Your task to perform on an android device: Open internet settings Image 0: 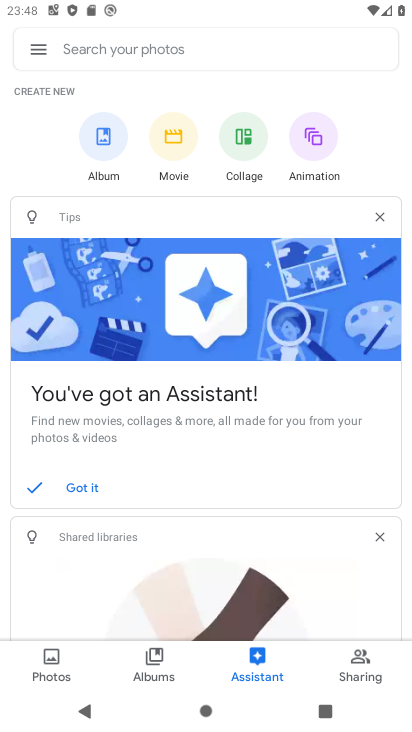
Step 0: press home button
Your task to perform on an android device: Open internet settings Image 1: 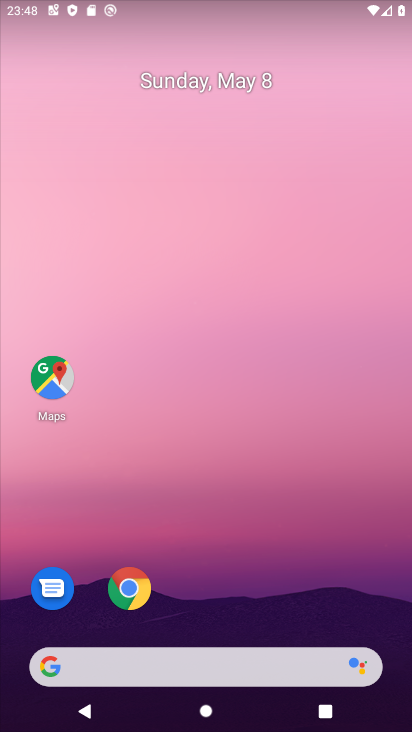
Step 1: drag from (207, 578) to (119, 59)
Your task to perform on an android device: Open internet settings Image 2: 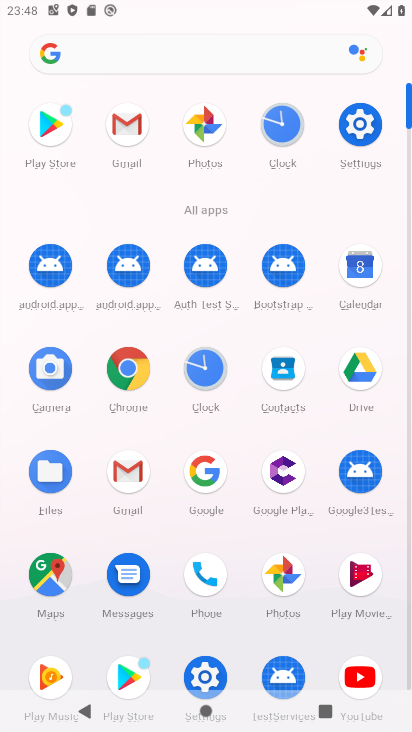
Step 2: click (359, 126)
Your task to perform on an android device: Open internet settings Image 3: 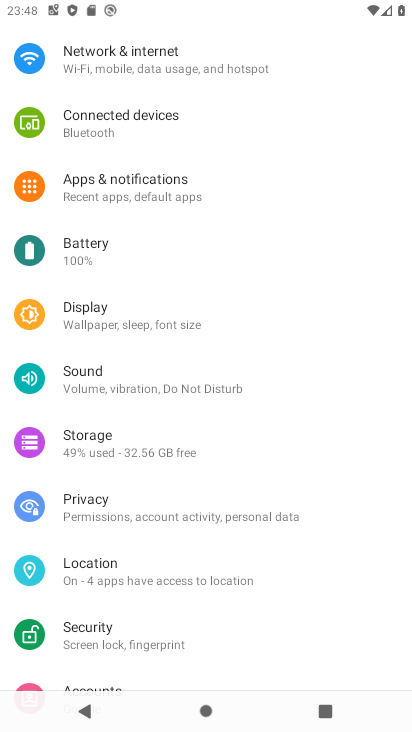
Step 3: drag from (234, 137) to (268, 473)
Your task to perform on an android device: Open internet settings Image 4: 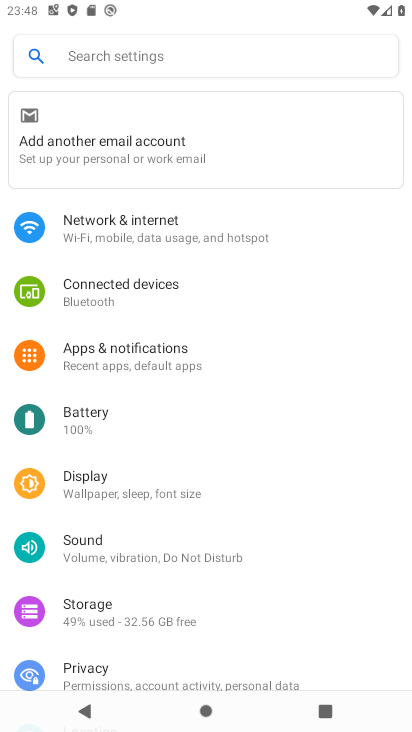
Step 4: click (113, 219)
Your task to perform on an android device: Open internet settings Image 5: 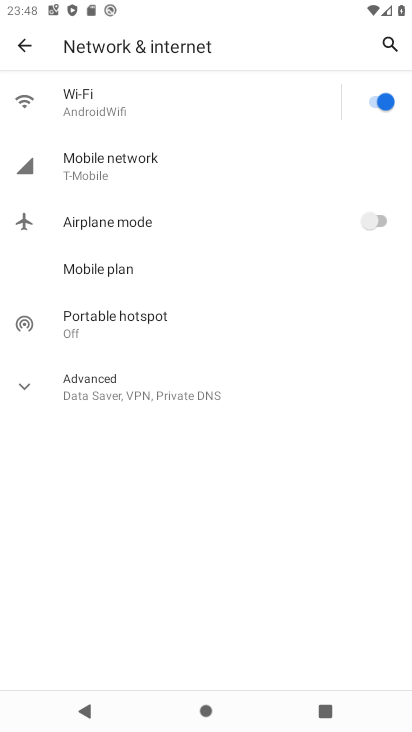
Step 5: task complete